Your task to perform on an android device: Open settings Image 0: 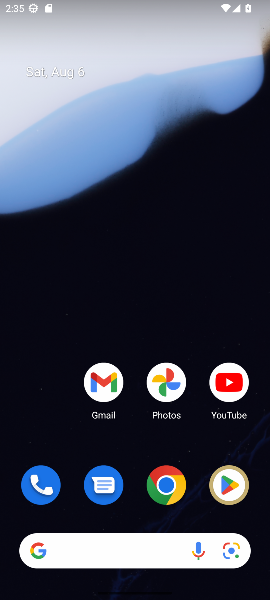
Step 0: press home button
Your task to perform on an android device: Open settings Image 1: 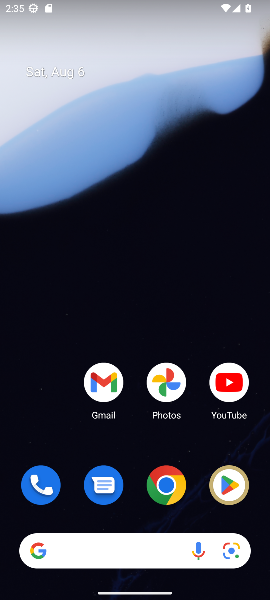
Step 1: drag from (132, 452) to (158, 9)
Your task to perform on an android device: Open settings Image 2: 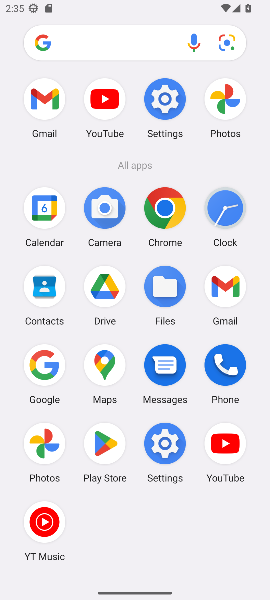
Step 2: click (164, 93)
Your task to perform on an android device: Open settings Image 3: 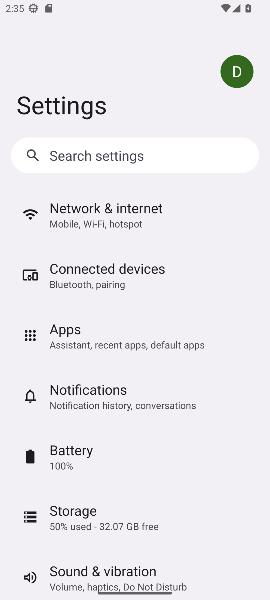
Step 3: task complete